Your task to perform on an android device: add a contact Image 0: 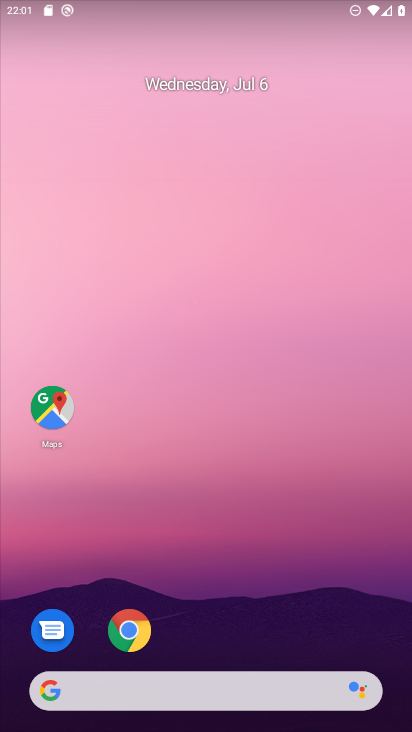
Step 0: press home button
Your task to perform on an android device: add a contact Image 1: 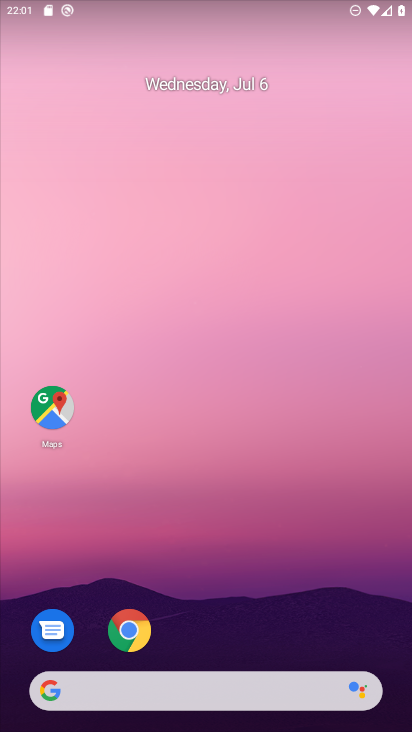
Step 1: drag from (315, 664) to (238, 3)
Your task to perform on an android device: add a contact Image 2: 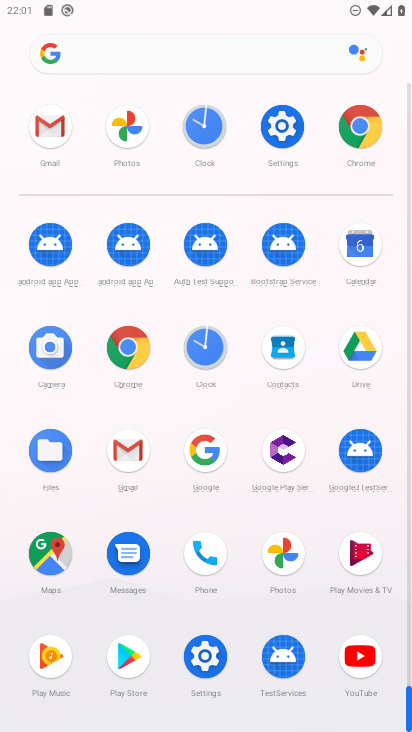
Step 2: click (272, 330)
Your task to perform on an android device: add a contact Image 3: 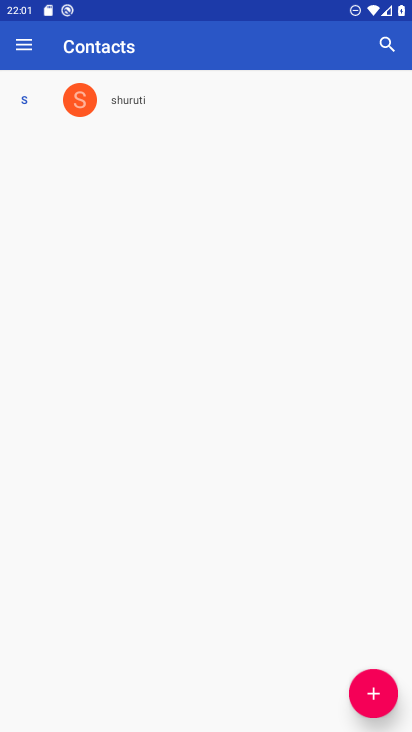
Step 3: click (365, 701)
Your task to perform on an android device: add a contact Image 4: 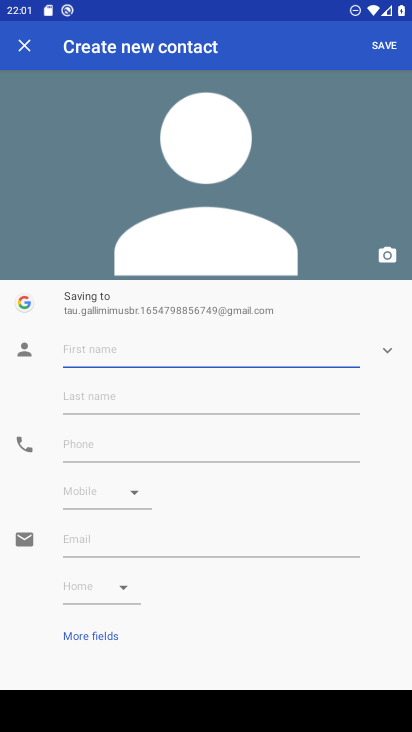
Step 4: type "arijit"
Your task to perform on an android device: add a contact Image 5: 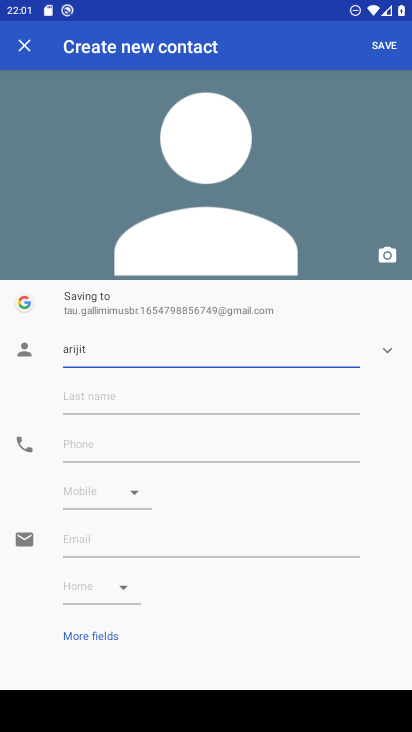
Step 5: click (245, 445)
Your task to perform on an android device: add a contact Image 6: 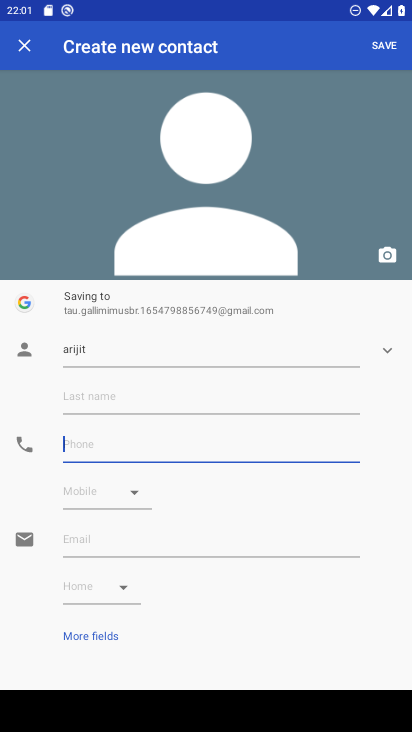
Step 6: click (245, 445)
Your task to perform on an android device: add a contact Image 7: 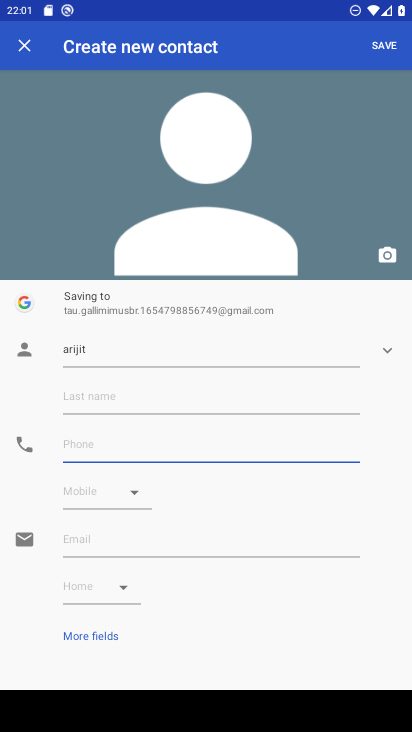
Step 7: click (245, 445)
Your task to perform on an android device: add a contact Image 8: 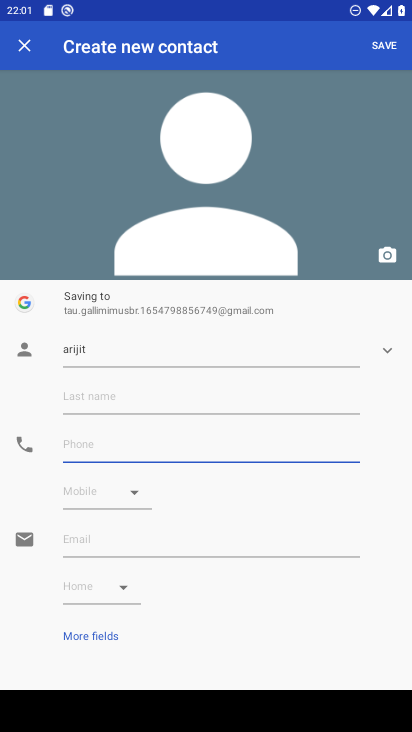
Step 8: type "665599"
Your task to perform on an android device: add a contact Image 9: 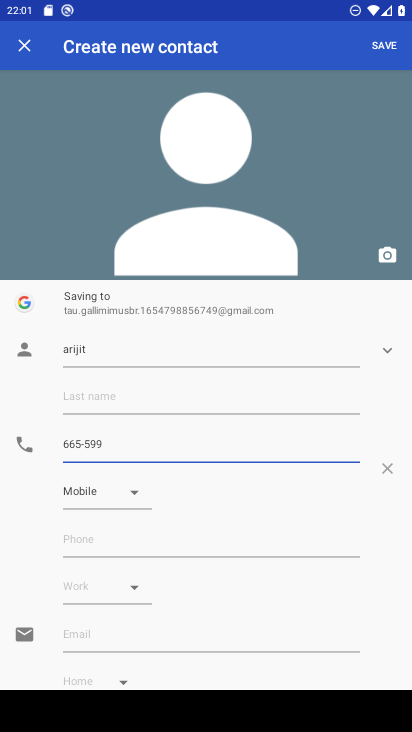
Step 9: click (389, 36)
Your task to perform on an android device: add a contact Image 10: 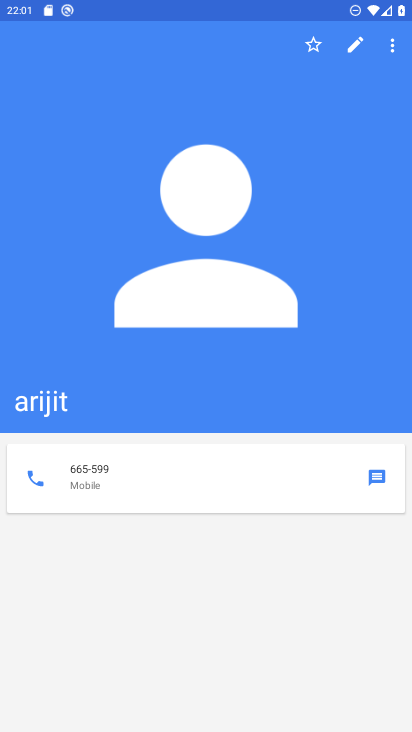
Step 10: task complete